Your task to perform on an android device: Turn off the flashlight Image 0: 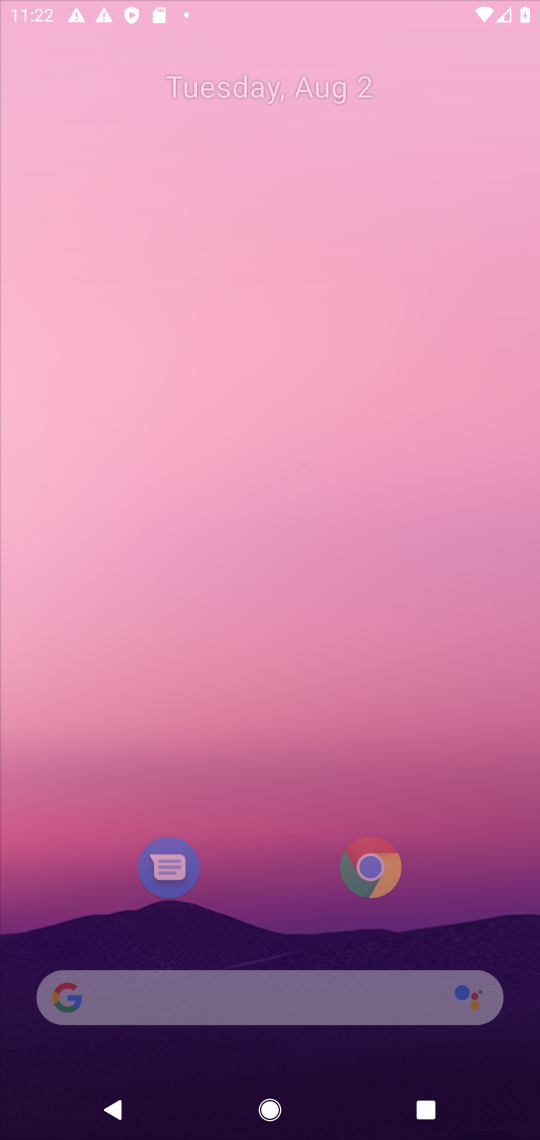
Step 0: press home button
Your task to perform on an android device: Turn off the flashlight Image 1: 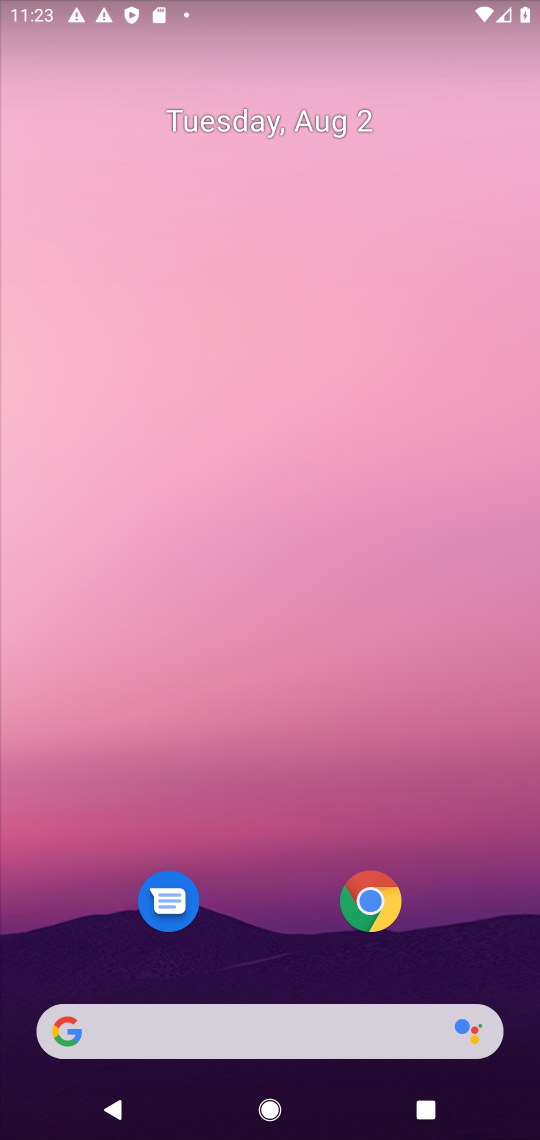
Step 1: drag from (468, 412) to (477, 346)
Your task to perform on an android device: Turn off the flashlight Image 2: 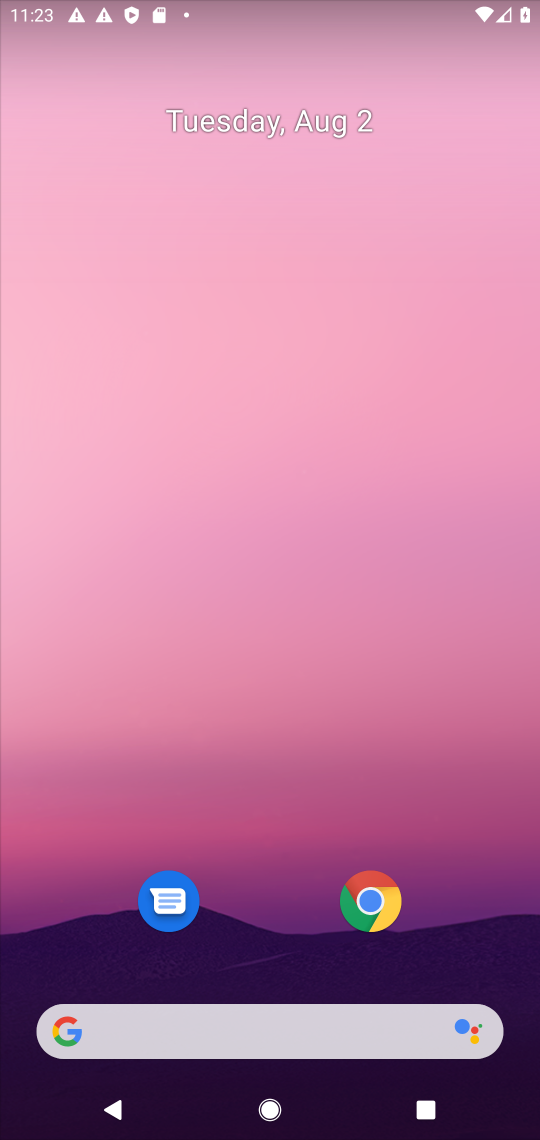
Step 2: drag from (498, 1093) to (353, 4)
Your task to perform on an android device: Turn off the flashlight Image 3: 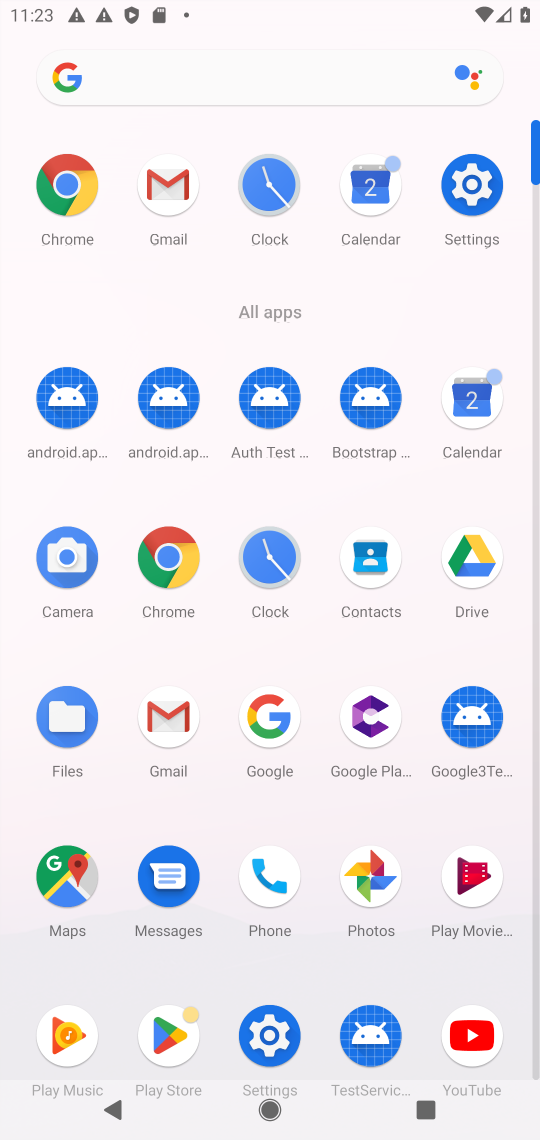
Step 3: click (486, 179)
Your task to perform on an android device: Turn off the flashlight Image 4: 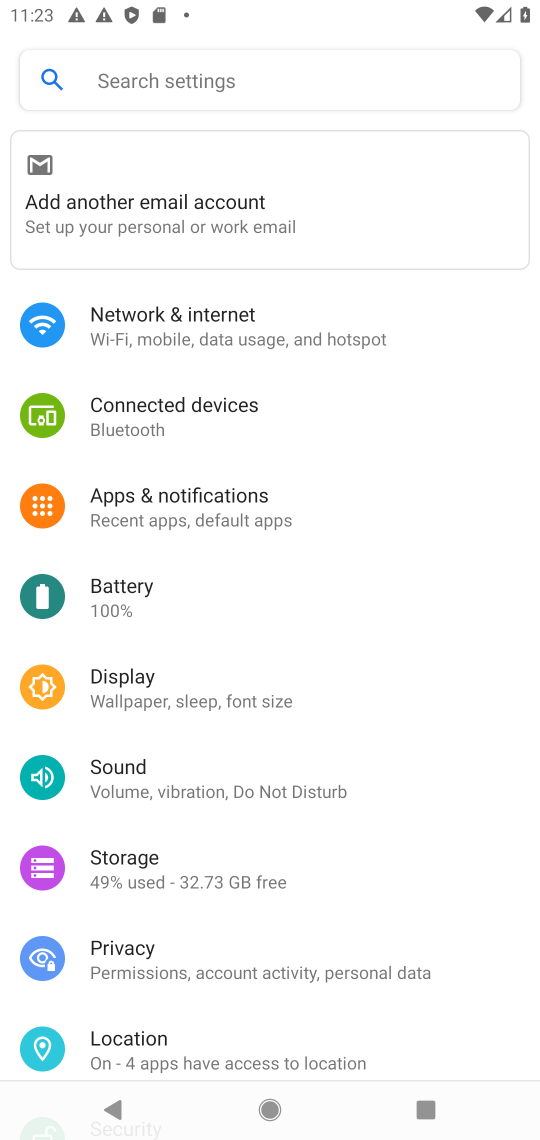
Step 4: click (101, 698)
Your task to perform on an android device: Turn off the flashlight Image 5: 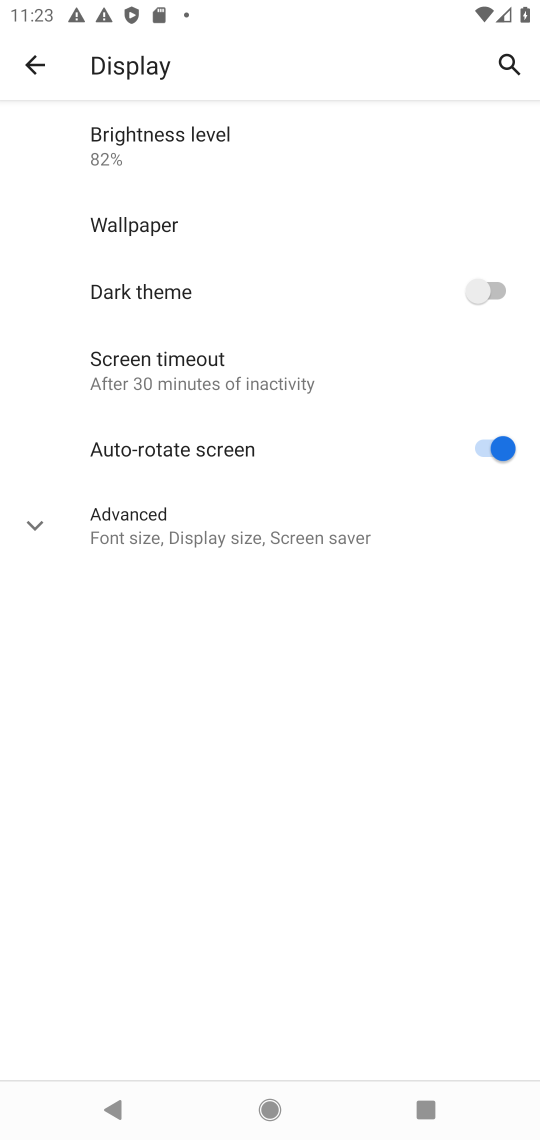
Step 5: task complete